Your task to perform on an android device: Set the phone to "Do not disturb". Image 0: 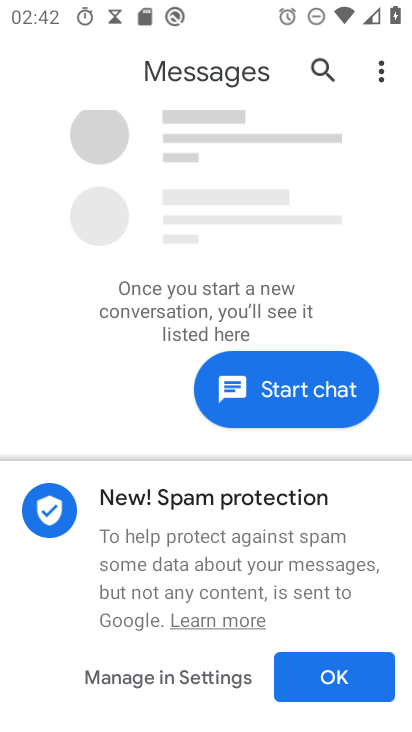
Step 0: press home button
Your task to perform on an android device: Set the phone to "Do not disturb". Image 1: 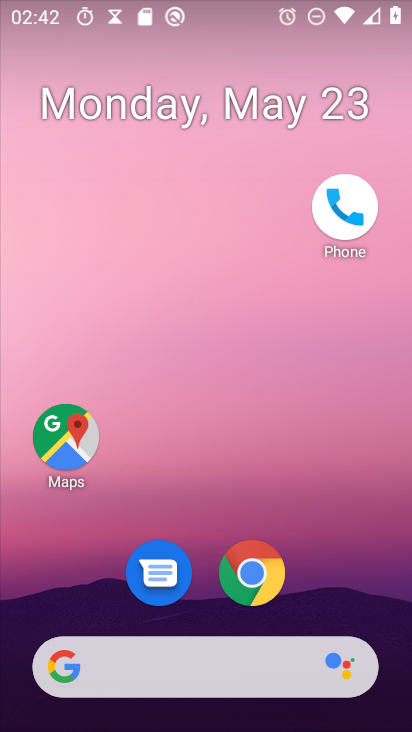
Step 1: drag from (129, 654) to (310, 90)
Your task to perform on an android device: Set the phone to "Do not disturb". Image 2: 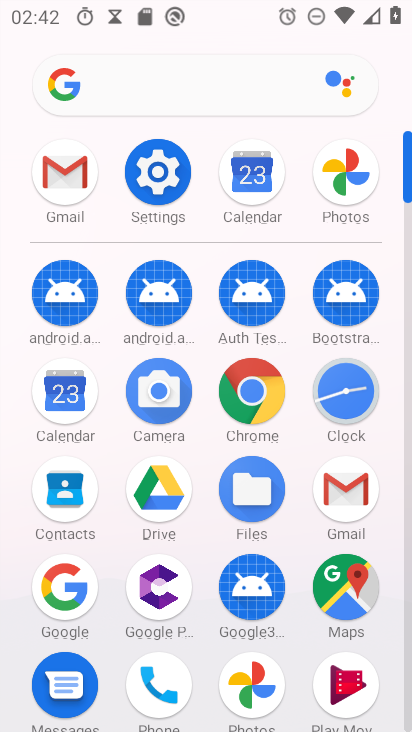
Step 2: click (145, 201)
Your task to perform on an android device: Set the phone to "Do not disturb". Image 3: 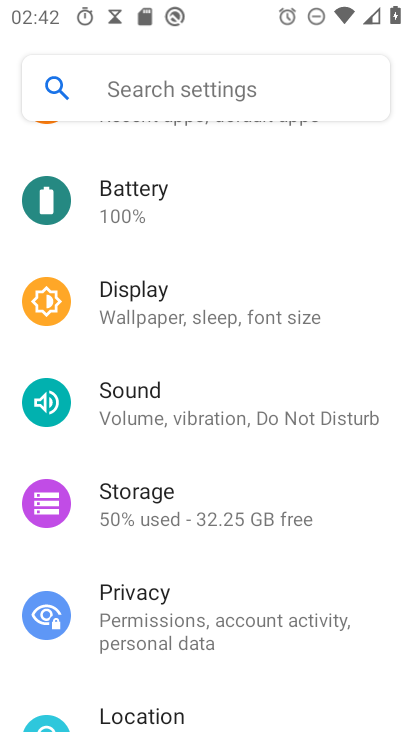
Step 3: click (184, 407)
Your task to perform on an android device: Set the phone to "Do not disturb". Image 4: 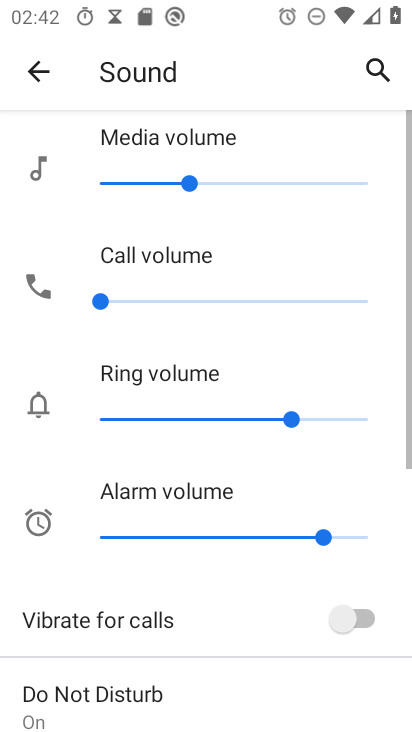
Step 4: drag from (177, 640) to (344, 202)
Your task to perform on an android device: Set the phone to "Do not disturb". Image 5: 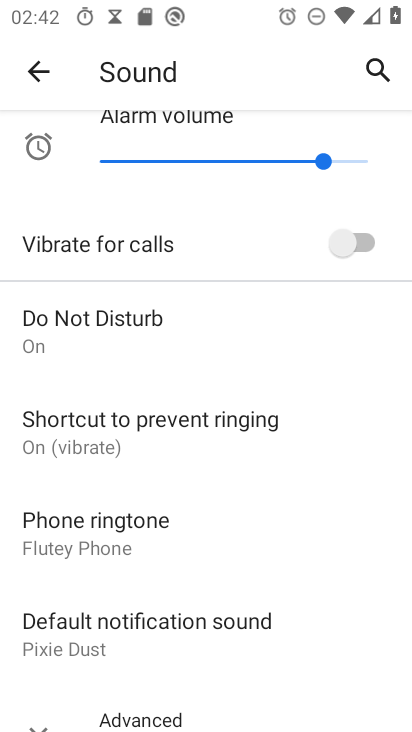
Step 5: click (138, 345)
Your task to perform on an android device: Set the phone to "Do not disturb". Image 6: 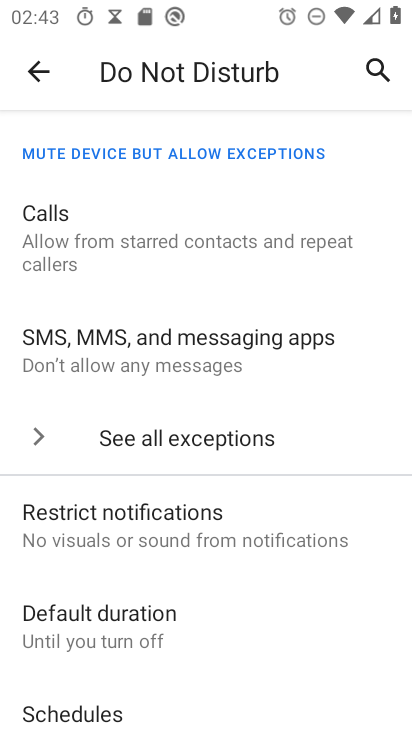
Step 6: task complete